Your task to perform on an android device: show emergency info Image 0: 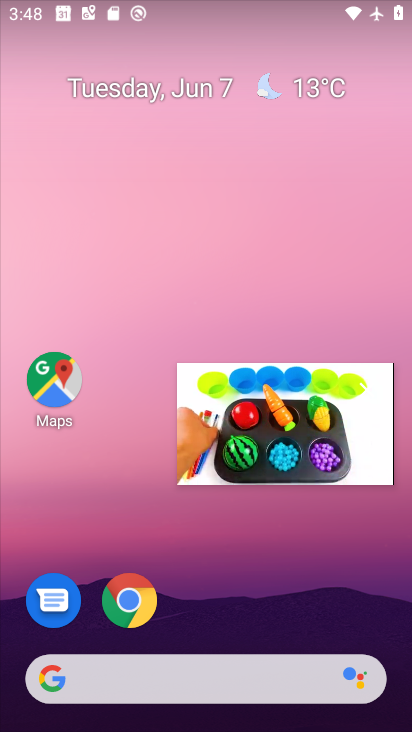
Step 0: click (297, 432)
Your task to perform on an android device: show emergency info Image 1: 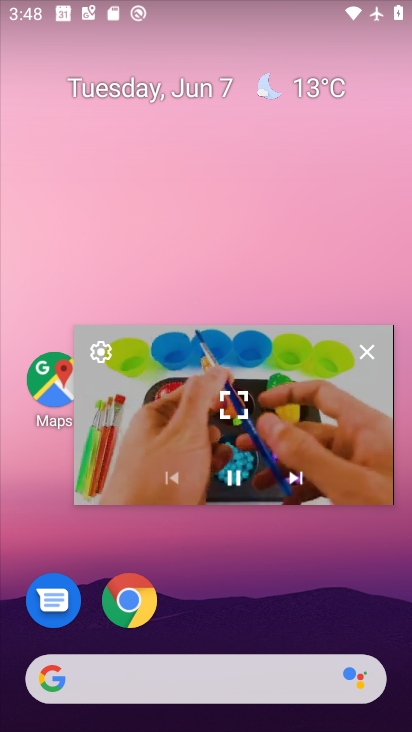
Step 1: click (374, 350)
Your task to perform on an android device: show emergency info Image 2: 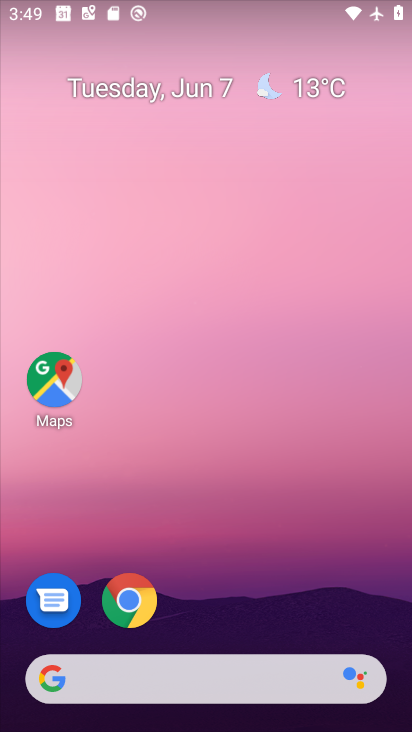
Step 2: drag from (283, 540) to (283, 108)
Your task to perform on an android device: show emergency info Image 3: 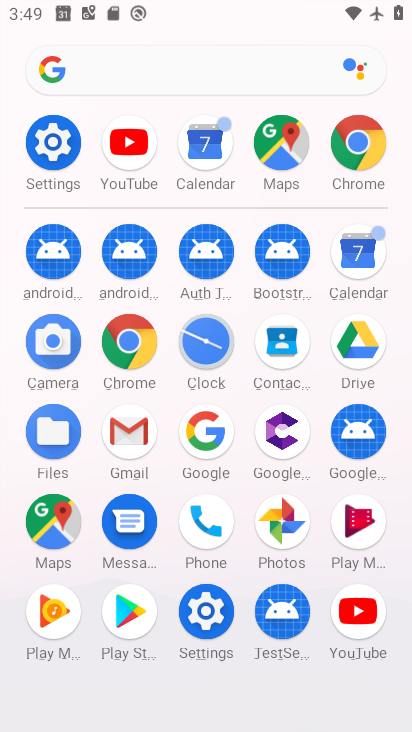
Step 3: click (54, 144)
Your task to perform on an android device: show emergency info Image 4: 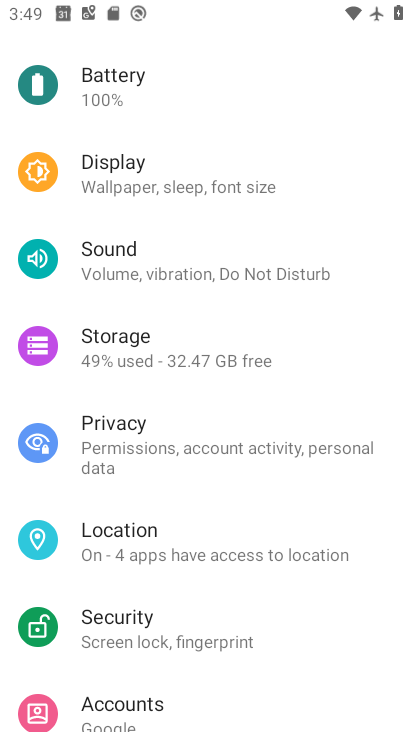
Step 4: drag from (270, 626) to (354, 72)
Your task to perform on an android device: show emergency info Image 5: 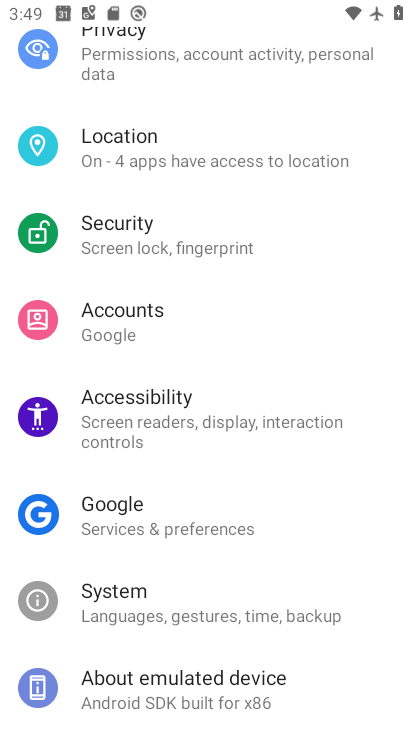
Step 5: click (207, 688)
Your task to perform on an android device: show emergency info Image 6: 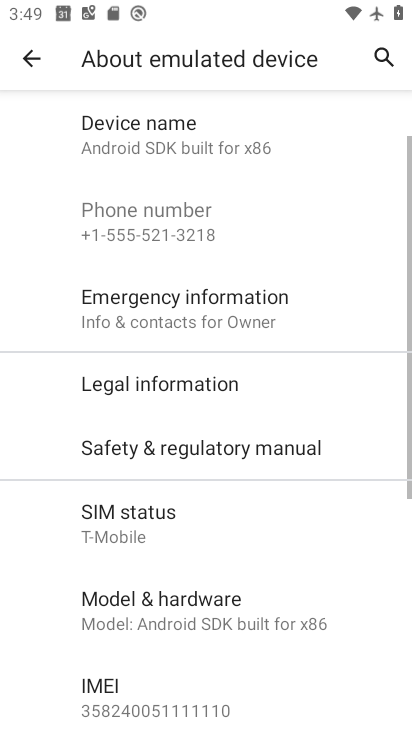
Step 6: click (171, 317)
Your task to perform on an android device: show emergency info Image 7: 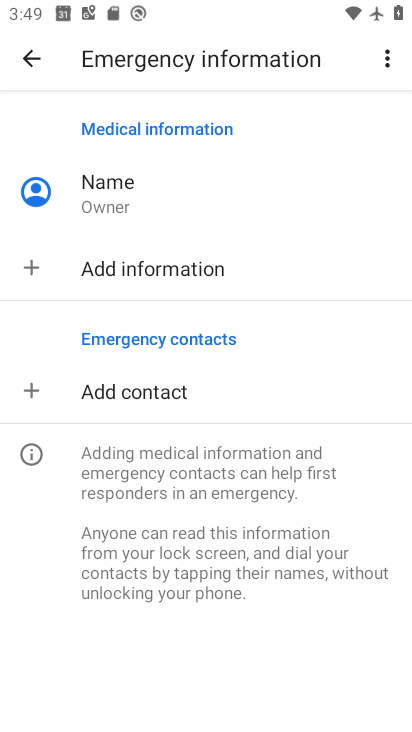
Step 7: task complete